Your task to perform on an android device: turn on notifications settings in the gmail app Image 0: 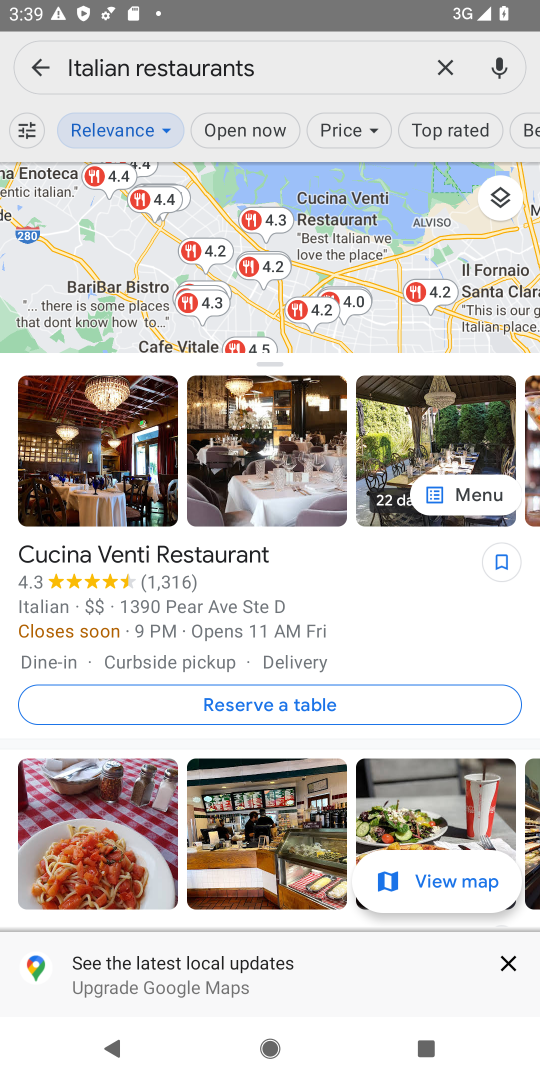
Step 0: press home button
Your task to perform on an android device: turn on notifications settings in the gmail app Image 1: 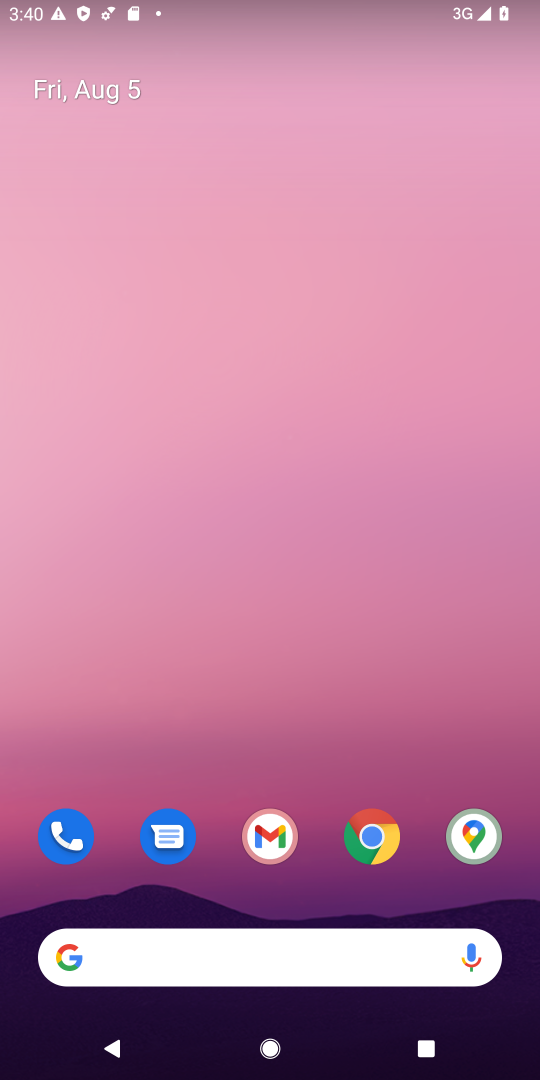
Step 1: drag from (261, 823) to (299, 65)
Your task to perform on an android device: turn on notifications settings in the gmail app Image 2: 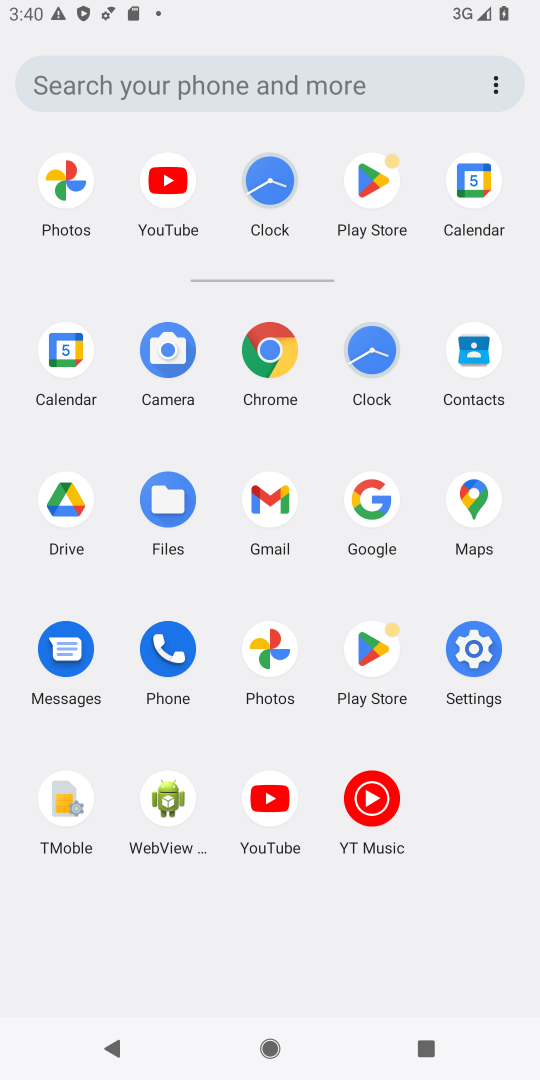
Step 2: click (289, 496)
Your task to perform on an android device: turn on notifications settings in the gmail app Image 3: 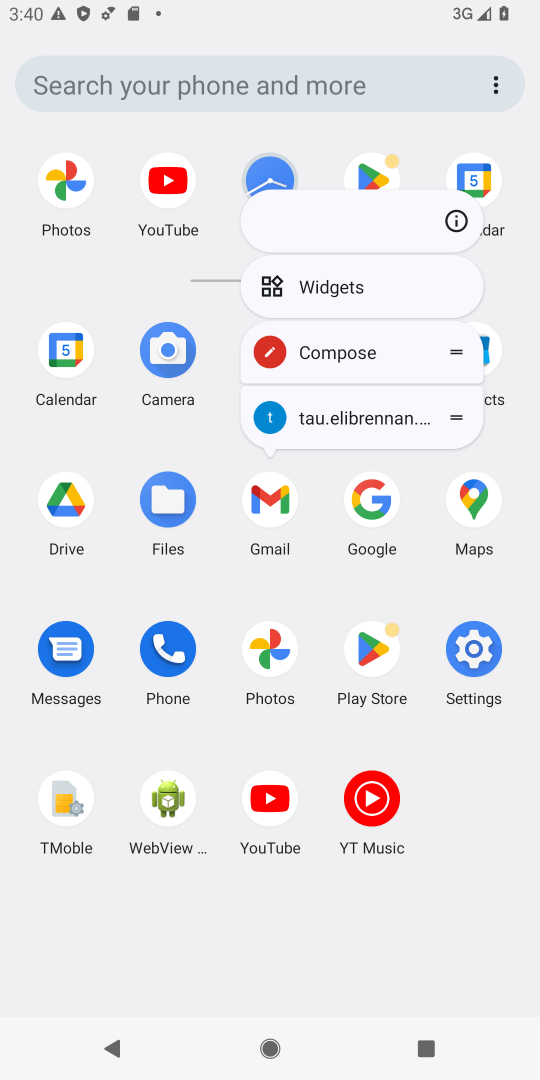
Step 3: click (287, 493)
Your task to perform on an android device: turn on notifications settings in the gmail app Image 4: 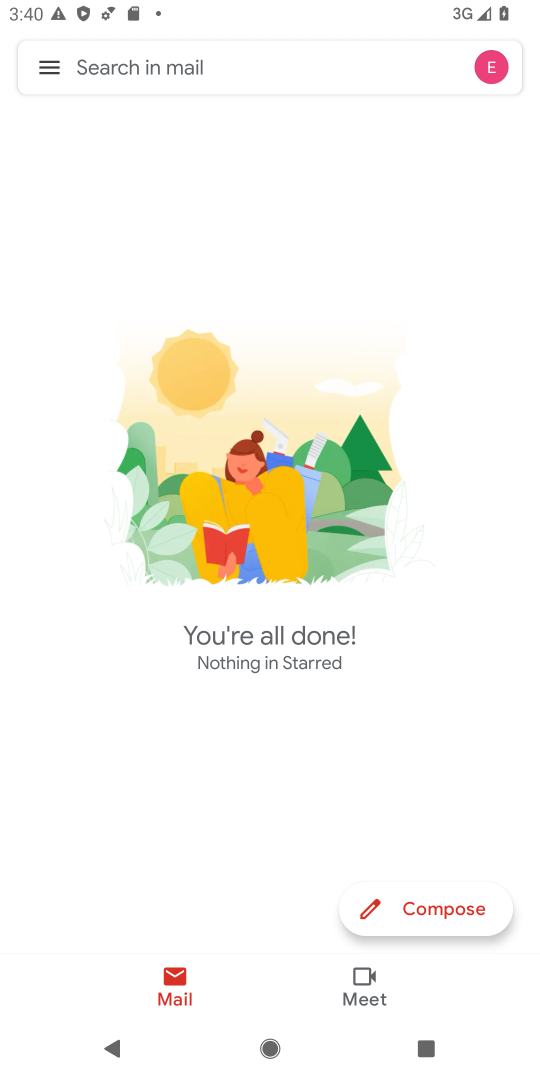
Step 4: click (34, 58)
Your task to perform on an android device: turn on notifications settings in the gmail app Image 5: 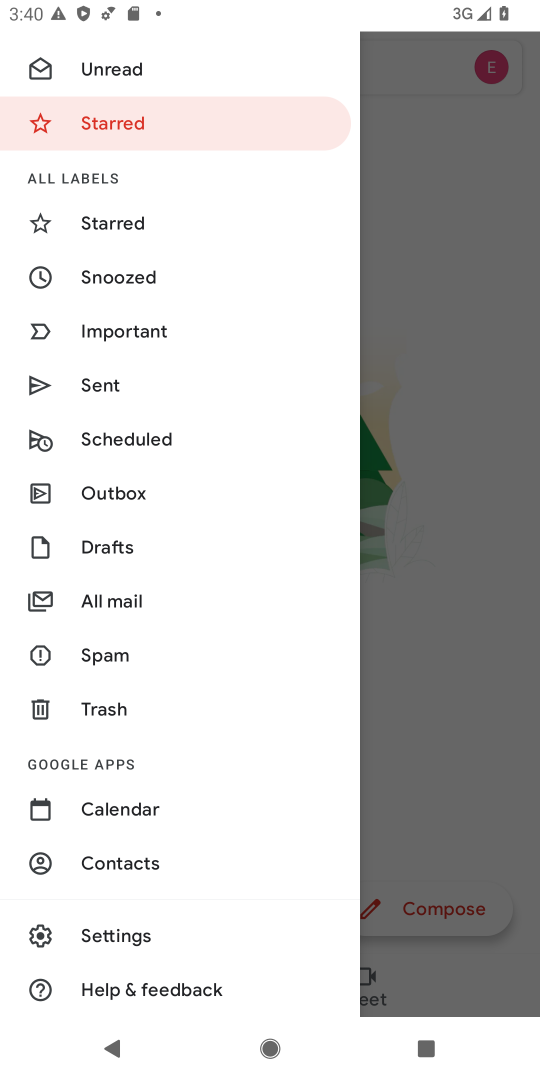
Step 5: click (104, 948)
Your task to perform on an android device: turn on notifications settings in the gmail app Image 6: 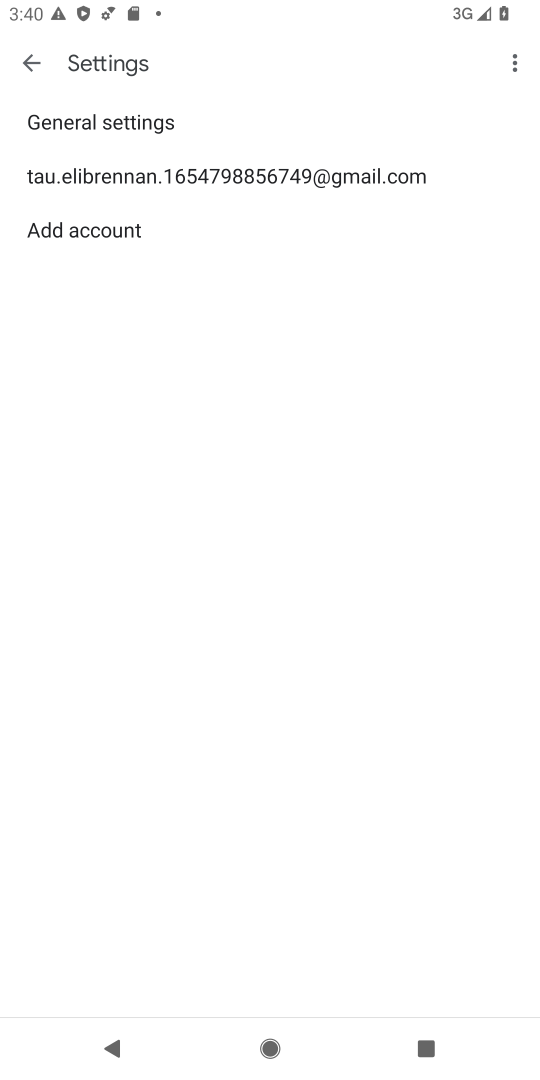
Step 6: click (138, 176)
Your task to perform on an android device: turn on notifications settings in the gmail app Image 7: 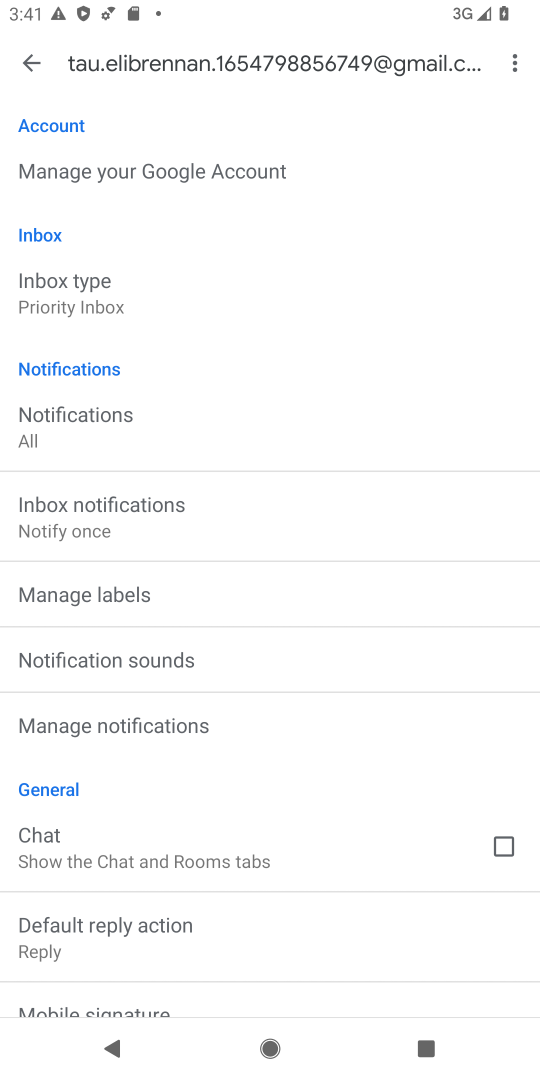
Step 7: click (125, 423)
Your task to perform on an android device: turn on notifications settings in the gmail app Image 8: 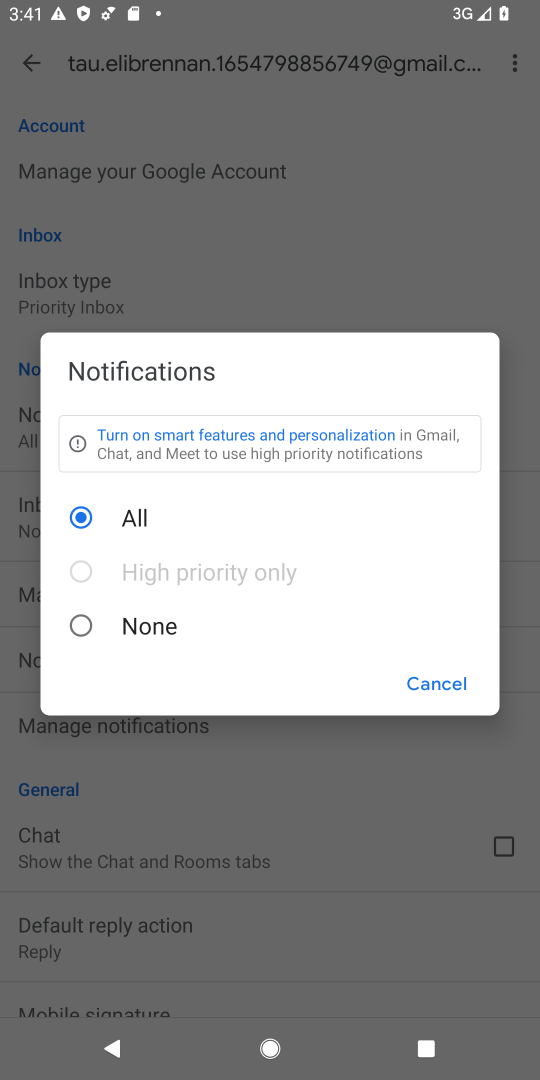
Step 8: task complete